Your task to perform on an android device: Check out the top rated books on Goodreads. Image 0: 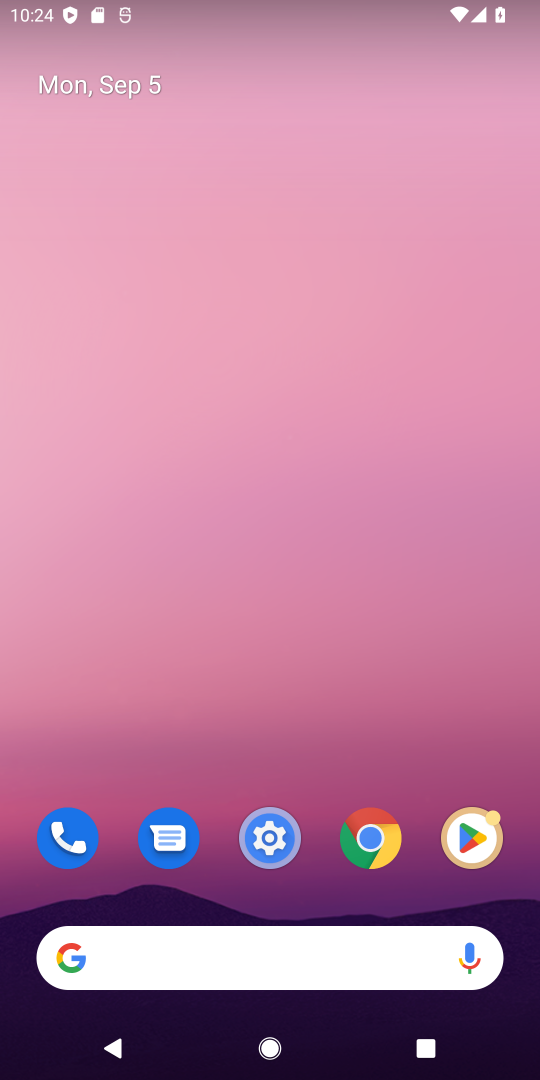
Step 0: click (212, 949)
Your task to perform on an android device: Check out the top rated books on Goodreads. Image 1: 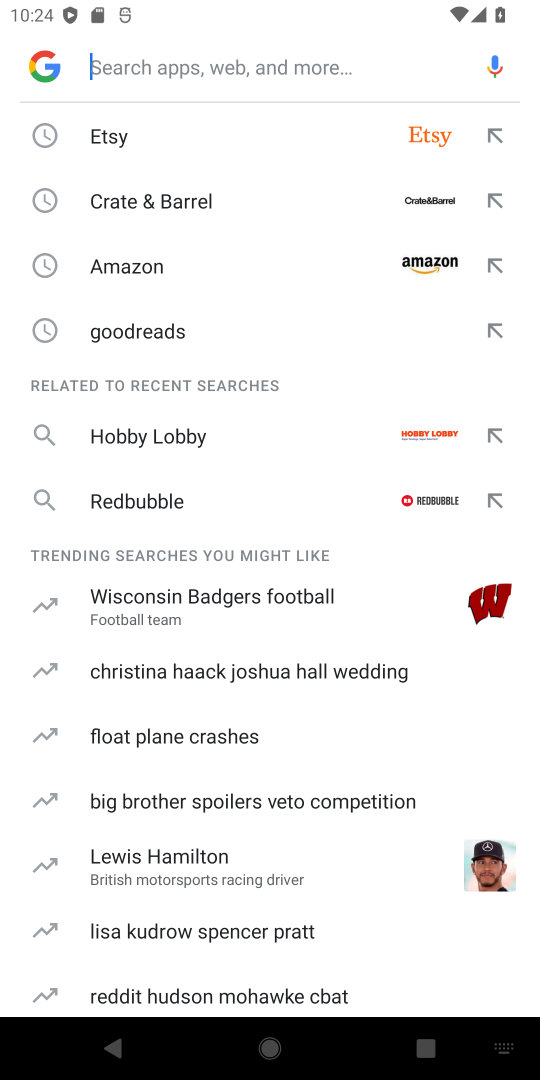
Step 1: type "Goodreads."
Your task to perform on an android device: Check out the top rated books on Goodreads. Image 2: 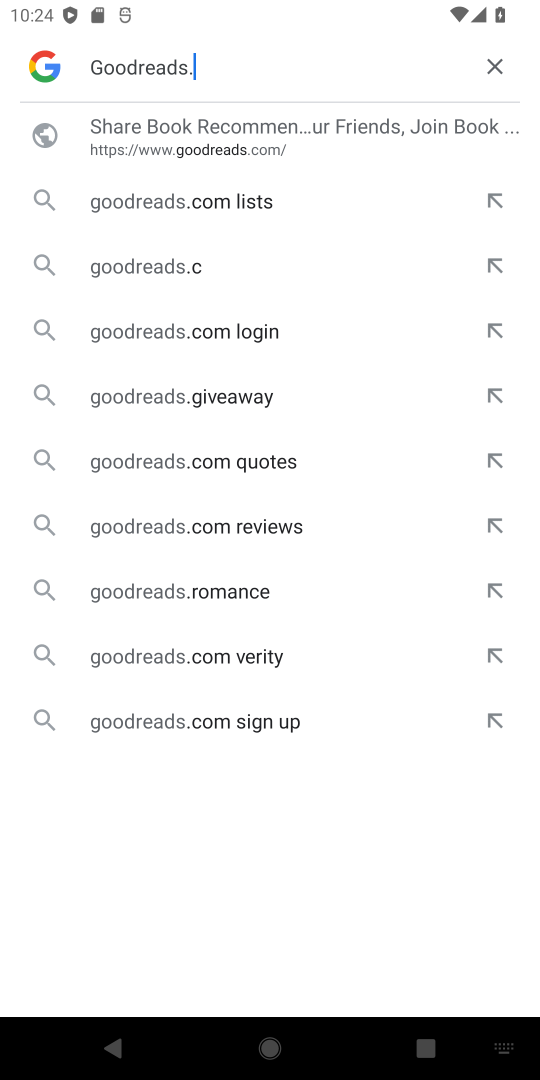
Step 2: click (176, 269)
Your task to perform on an android device: Check out the top rated books on Goodreads. Image 3: 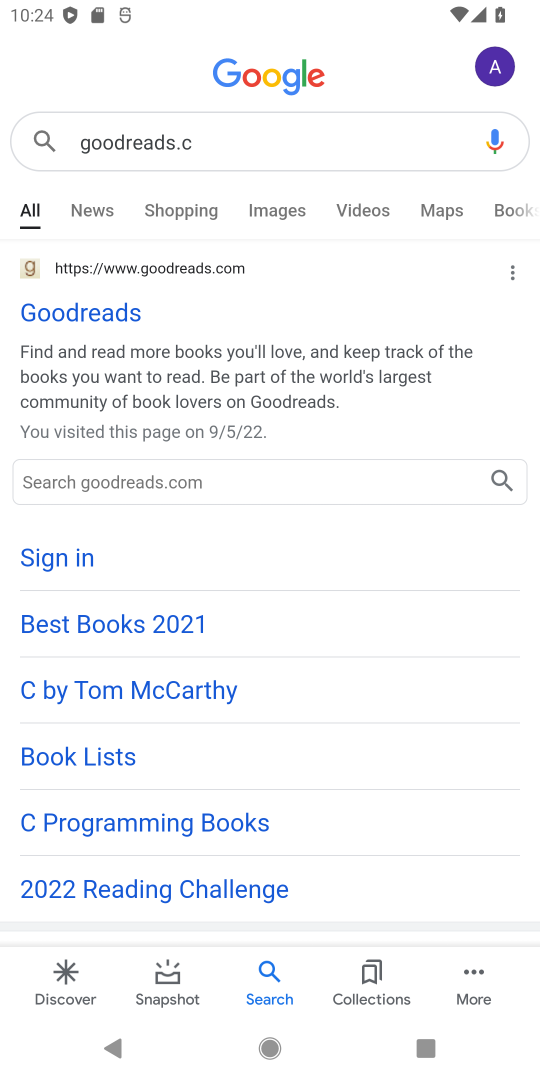
Step 3: click (119, 305)
Your task to perform on an android device: Check out the top rated books on Goodreads. Image 4: 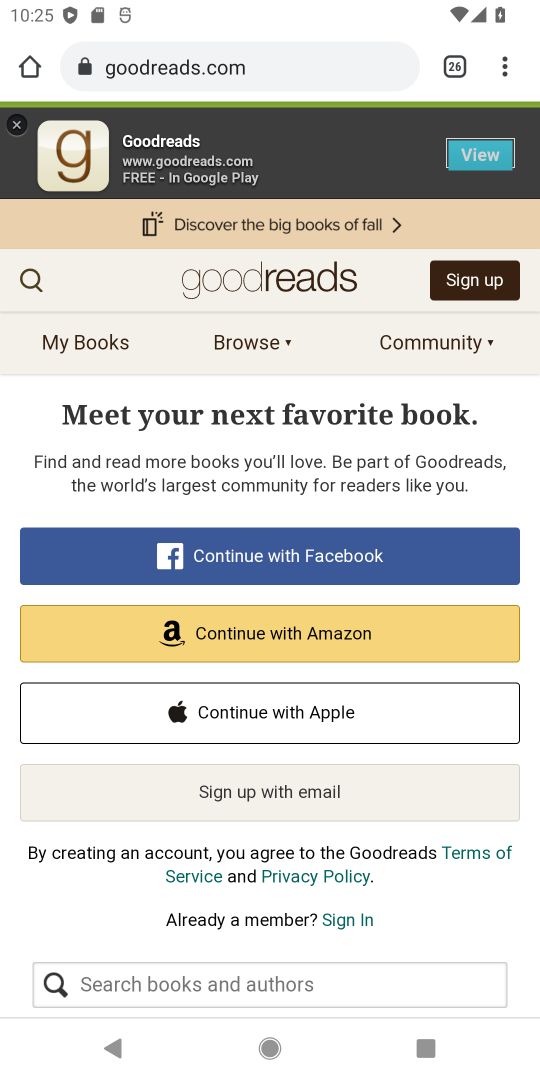
Step 4: click (29, 283)
Your task to perform on an android device: Check out the top rated books on Goodreads. Image 5: 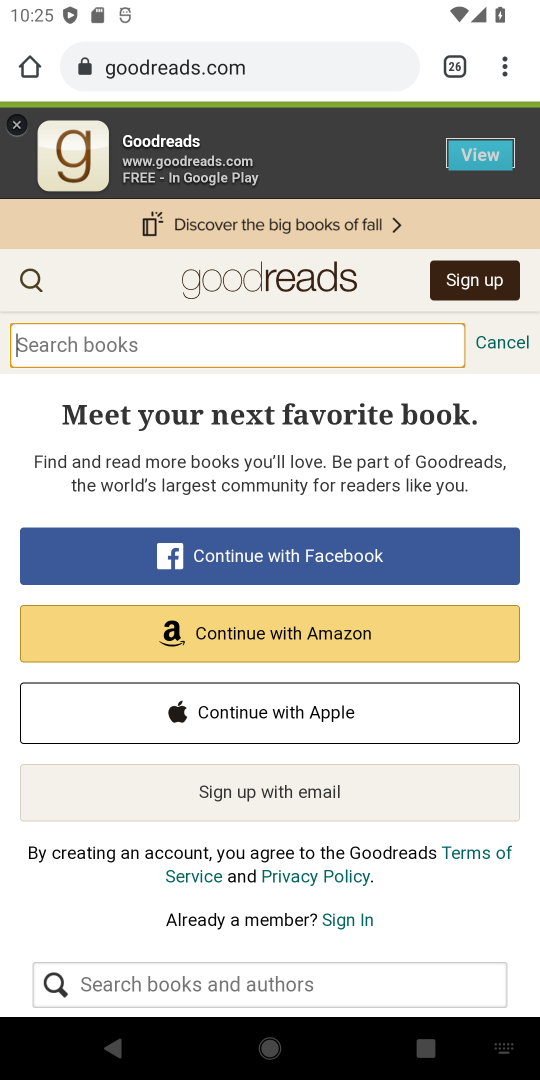
Step 5: type "top rated books"
Your task to perform on an android device: Check out the top rated books on Goodreads. Image 6: 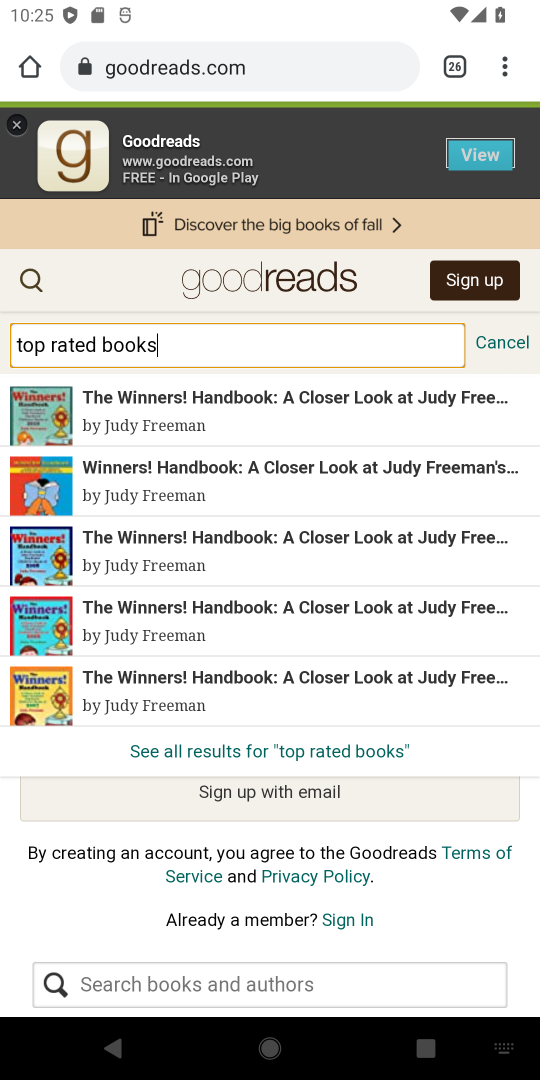
Step 6: task complete